Your task to perform on an android device: check google app version Image 0: 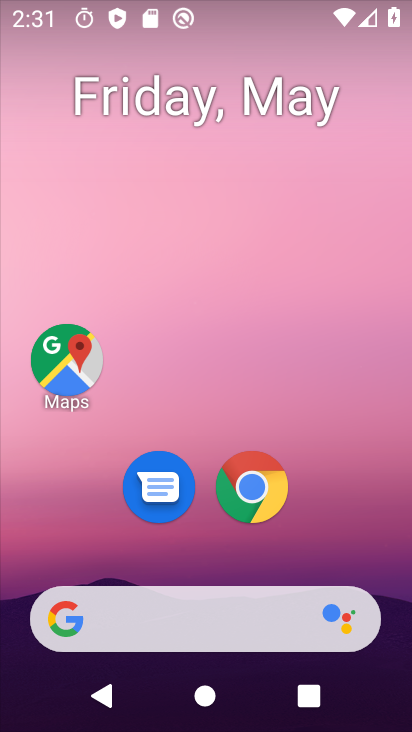
Step 0: drag from (226, 517) to (233, 22)
Your task to perform on an android device: check google app version Image 1: 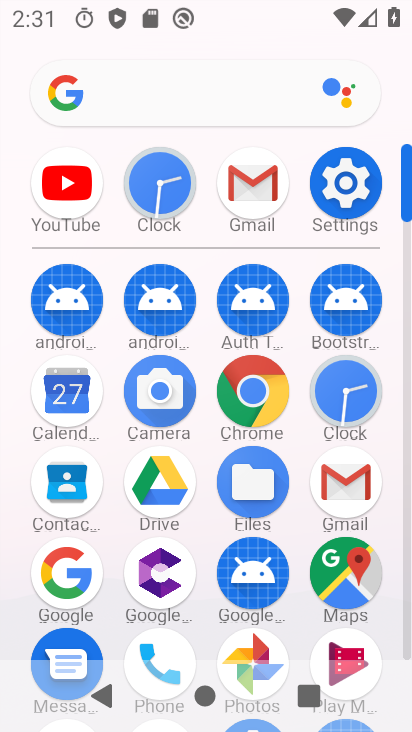
Step 1: click (49, 576)
Your task to perform on an android device: check google app version Image 2: 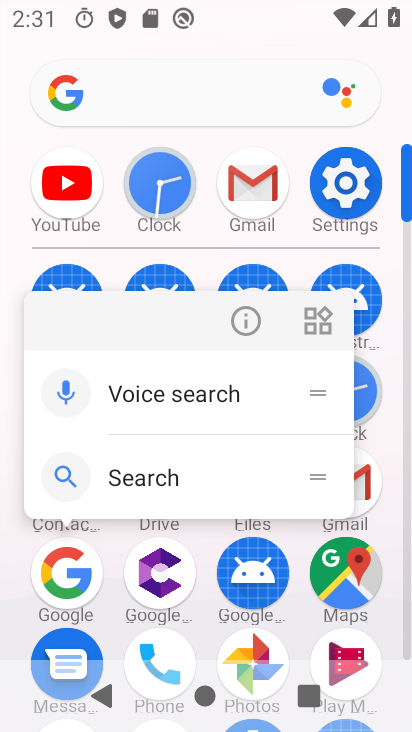
Step 2: click (242, 320)
Your task to perform on an android device: check google app version Image 3: 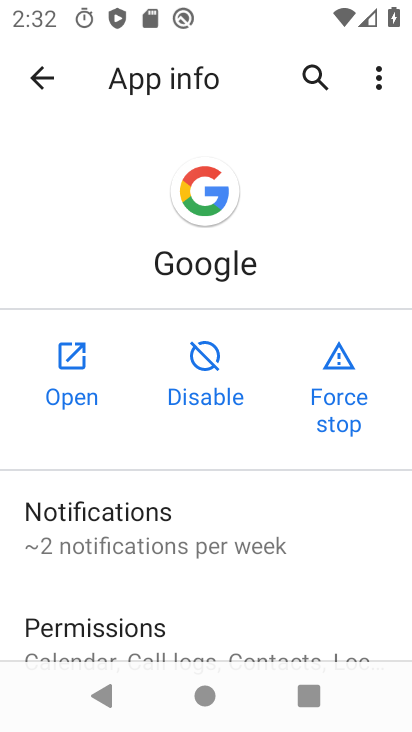
Step 3: drag from (249, 581) to (307, 12)
Your task to perform on an android device: check google app version Image 4: 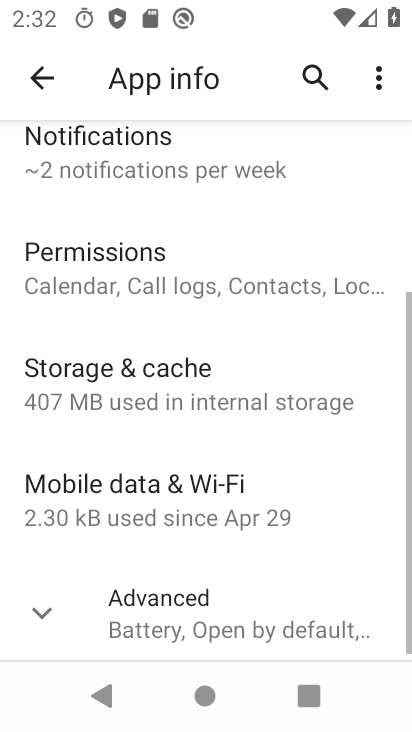
Step 4: drag from (148, 590) to (149, 61)
Your task to perform on an android device: check google app version Image 5: 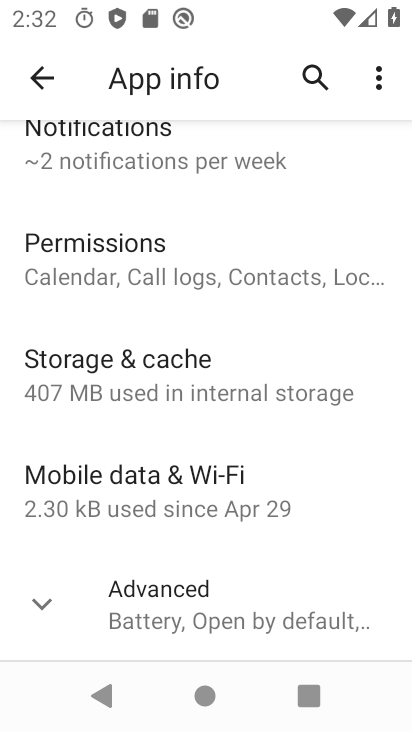
Step 5: click (149, 576)
Your task to perform on an android device: check google app version Image 6: 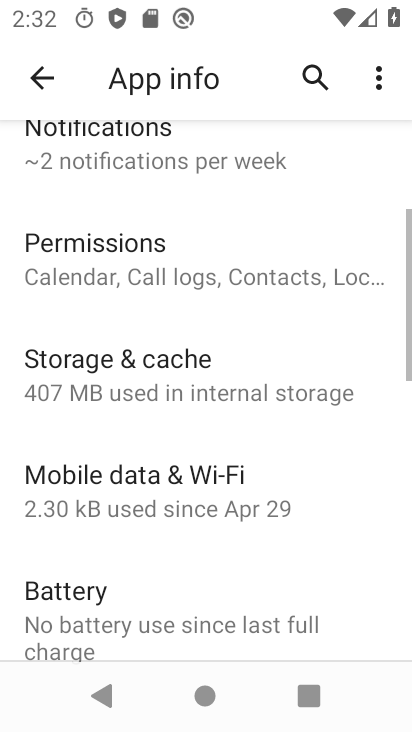
Step 6: task complete